Your task to perform on an android device: Open privacy settings Image 0: 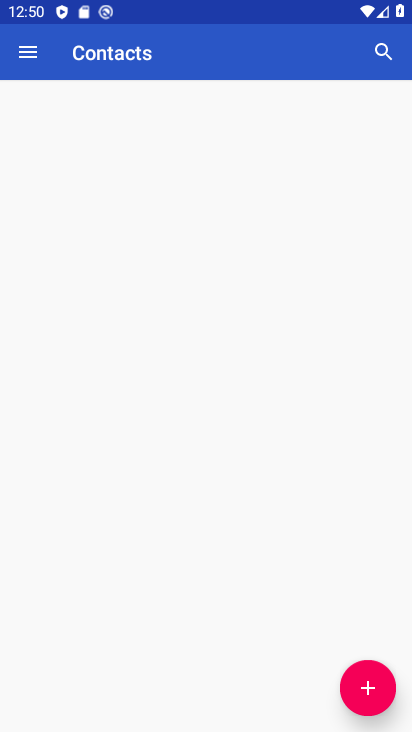
Step 0: press home button
Your task to perform on an android device: Open privacy settings Image 1: 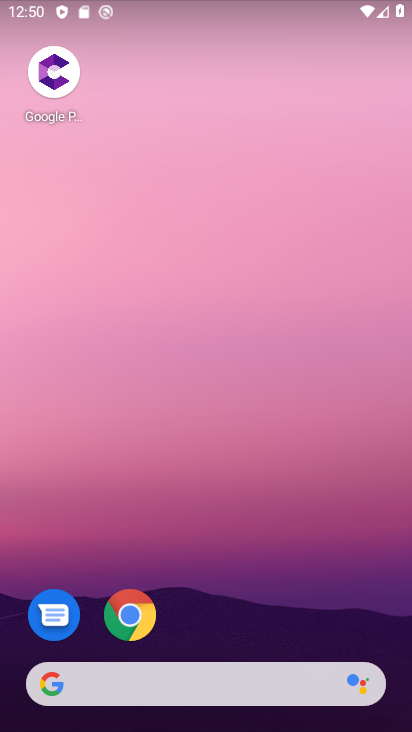
Step 1: drag from (239, 641) to (213, 37)
Your task to perform on an android device: Open privacy settings Image 2: 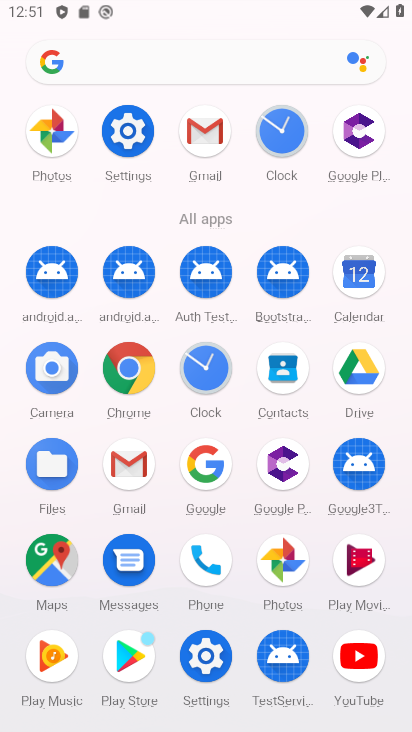
Step 2: click (110, 129)
Your task to perform on an android device: Open privacy settings Image 3: 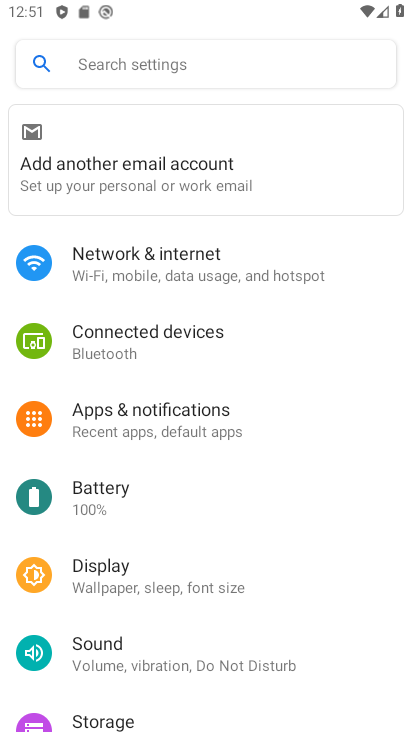
Step 3: drag from (181, 550) to (149, 297)
Your task to perform on an android device: Open privacy settings Image 4: 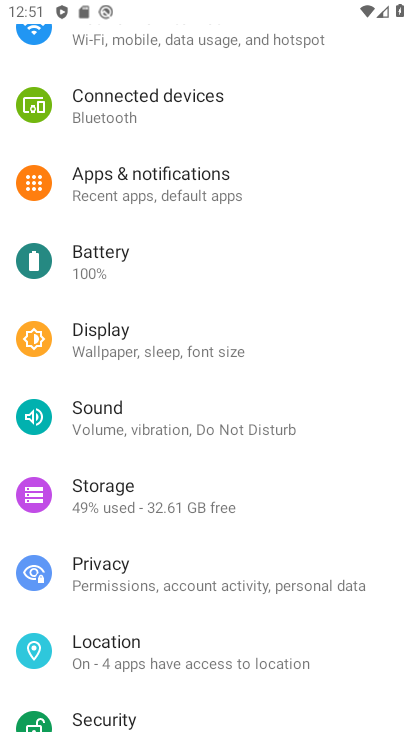
Step 4: drag from (183, 580) to (203, 420)
Your task to perform on an android device: Open privacy settings Image 5: 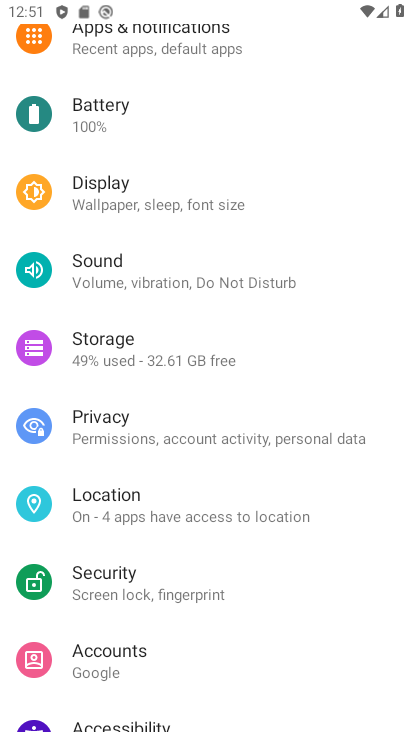
Step 5: click (157, 429)
Your task to perform on an android device: Open privacy settings Image 6: 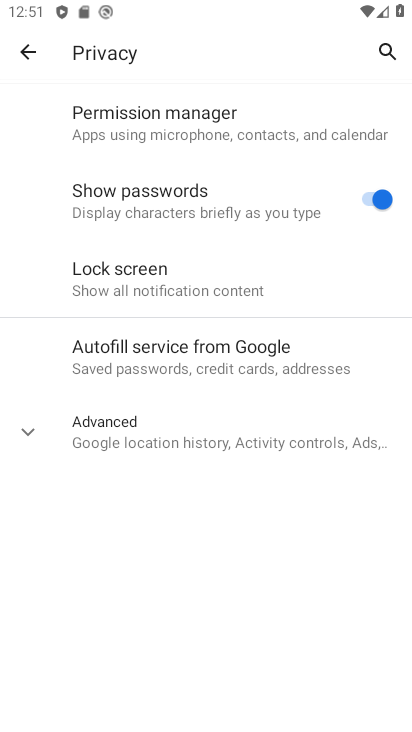
Step 6: task complete